Your task to perform on an android device: Search for pizza restaurants on Maps Image 0: 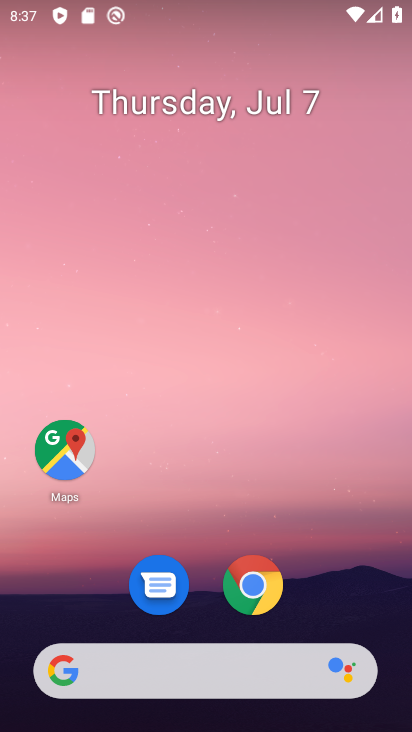
Step 0: click (67, 453)
Your task to perform on an android device: Search for pizza restaurants on Maps Image 1: 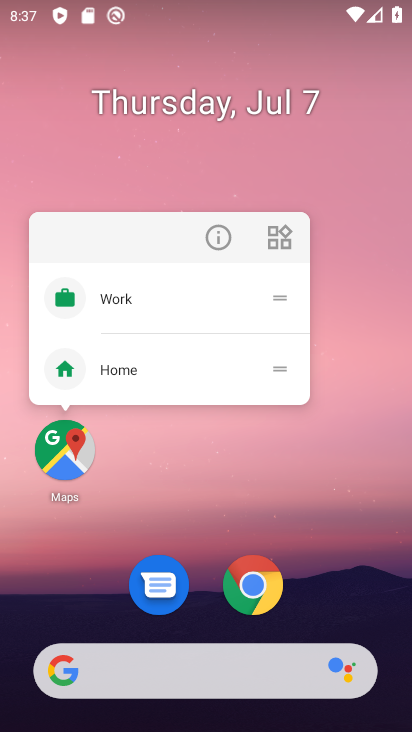
Step 1: click (67, 451)
Your task to perform on an android device: Search for pizza restaurants on Maps Image 2: 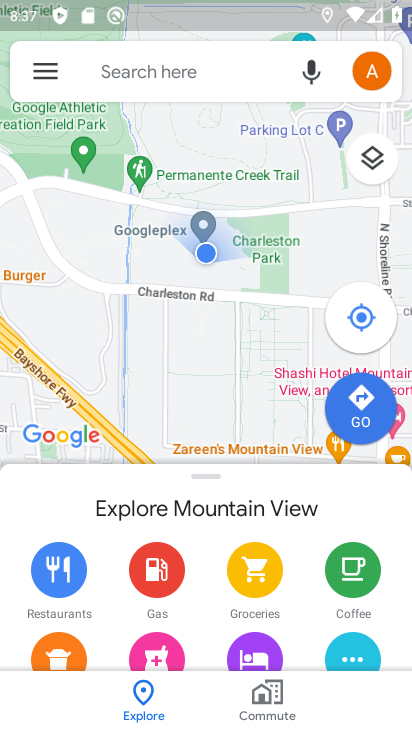
Step 2: click (197, 69)
Your task to perform on an android device: Search for pizza restaurants on Maps Image 3: 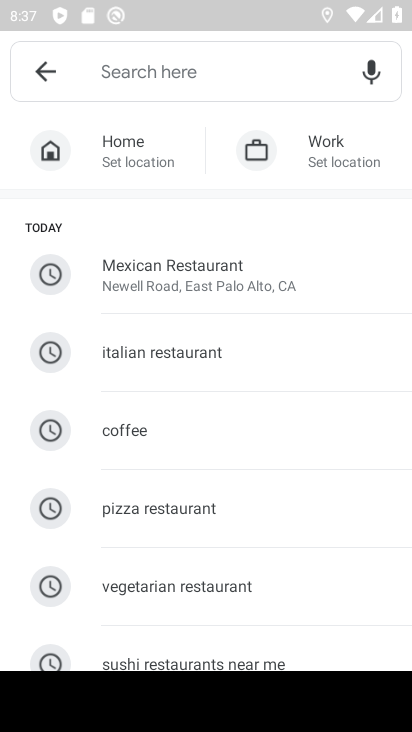
Step 3: click (161, 510)
Your task to perform on an android device: Search for pizza restaurants on Maps Image 4: 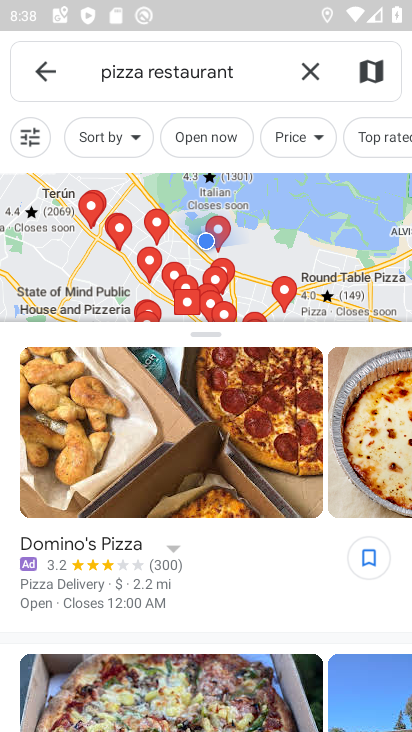
Step 4: task complete